Your task to perform on an android device: Search for logitech g933 on target, select the first entry, add it to the cart, then select checkout. Image 0: 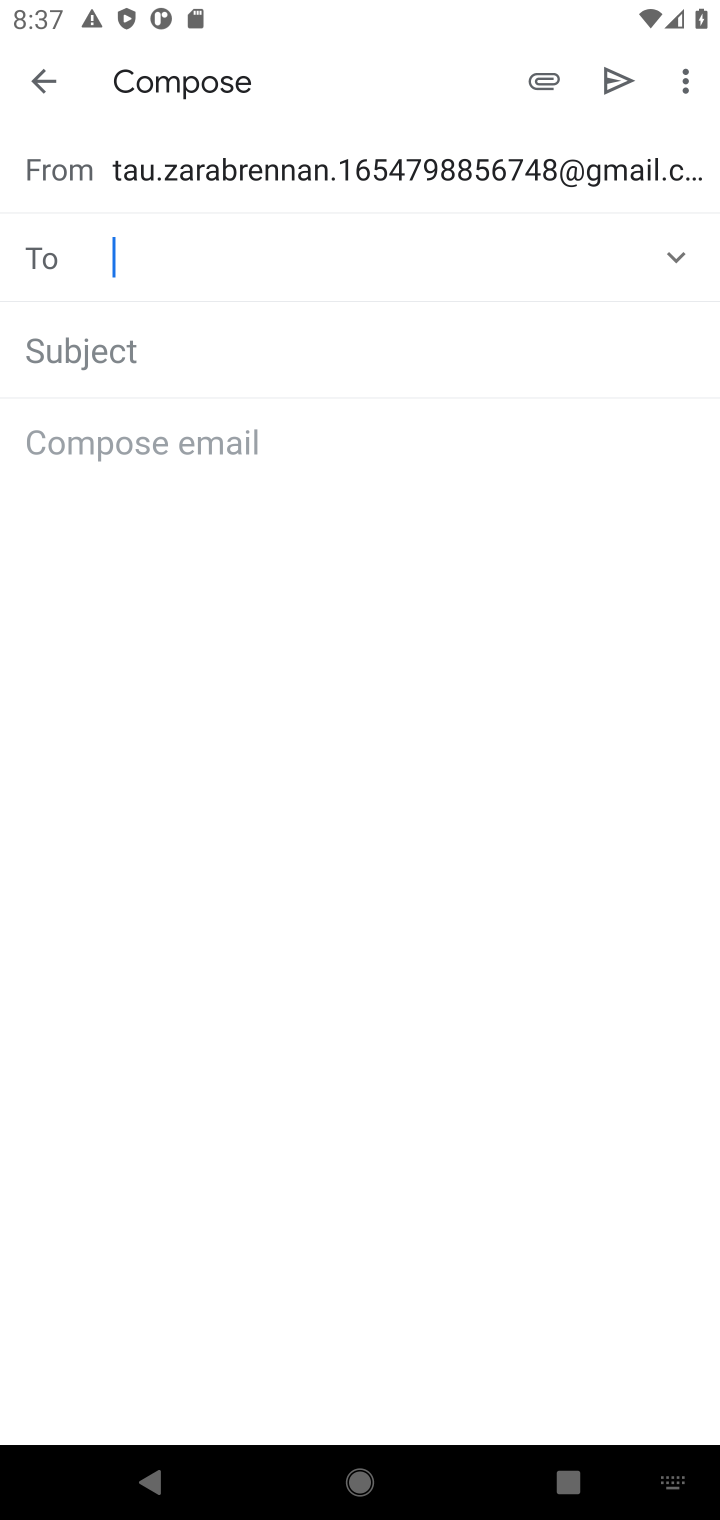
Step 0: press home button
Your task to perform on an android device: Search for logitech g933 on target, select the first entry, add it to the cart, then select checkout. Image 1: 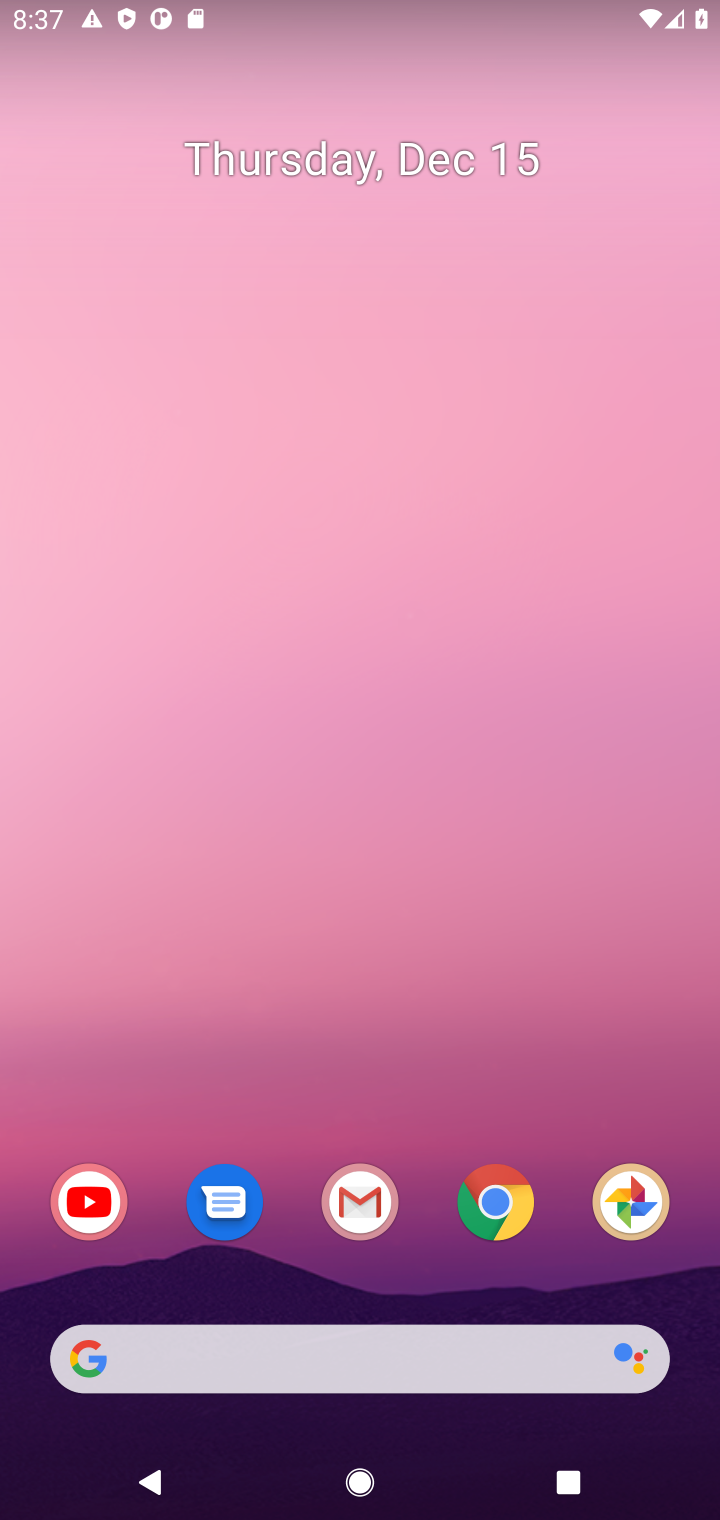
Step 1: click (497, 1204)
Your task to perform on an android device: Search for logitech g933 on target, select the first entry, add it to the cart, then select checkout. Image 2: 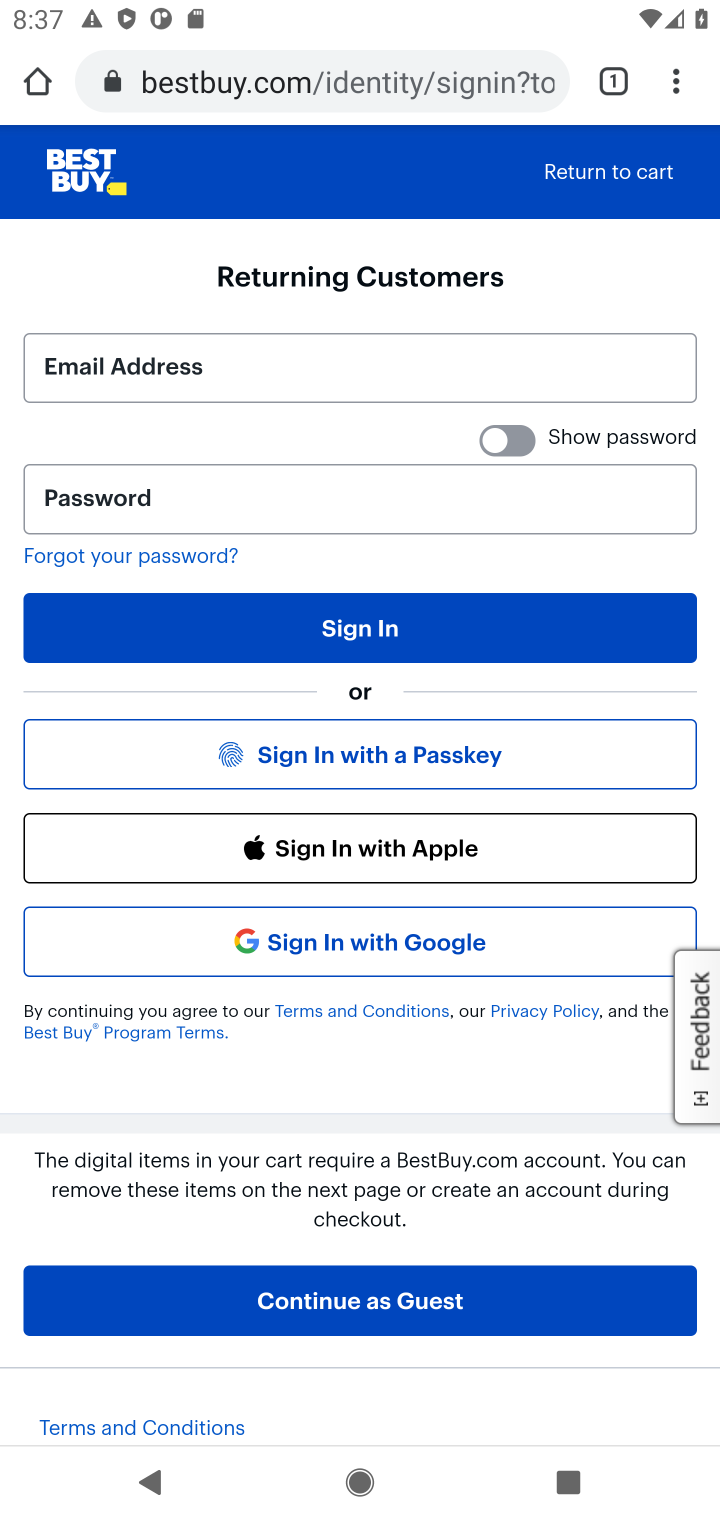
Step 2: click (306, 84)
Your task to perform on an android device: Search for logitech g933 on target, select the first entry, add it to the cart, then select checkout. Image 3: 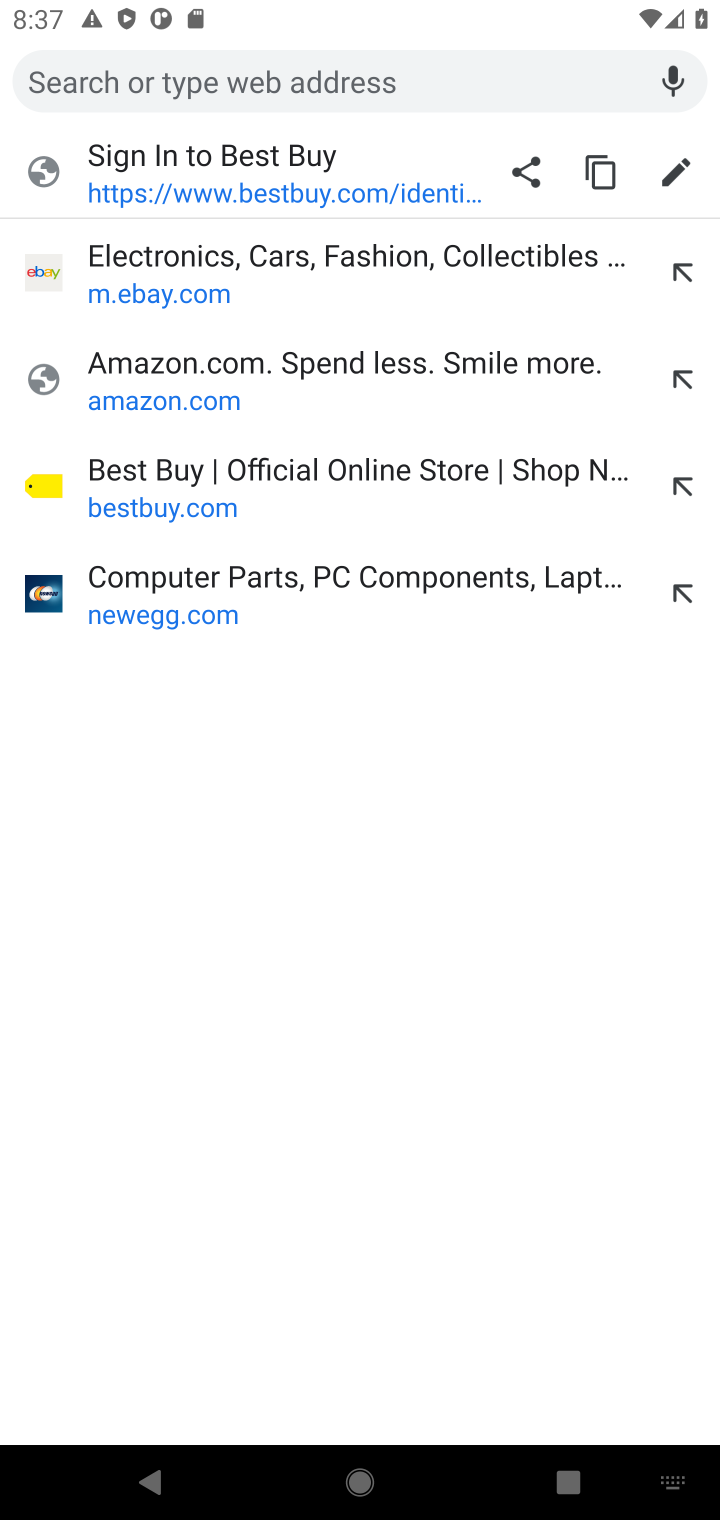
Step 3: type "target.com"
Your task to perform on an android device: Search for logitech g933 on target, select the first entry, add it to the cart, then select checkout. Image 4: 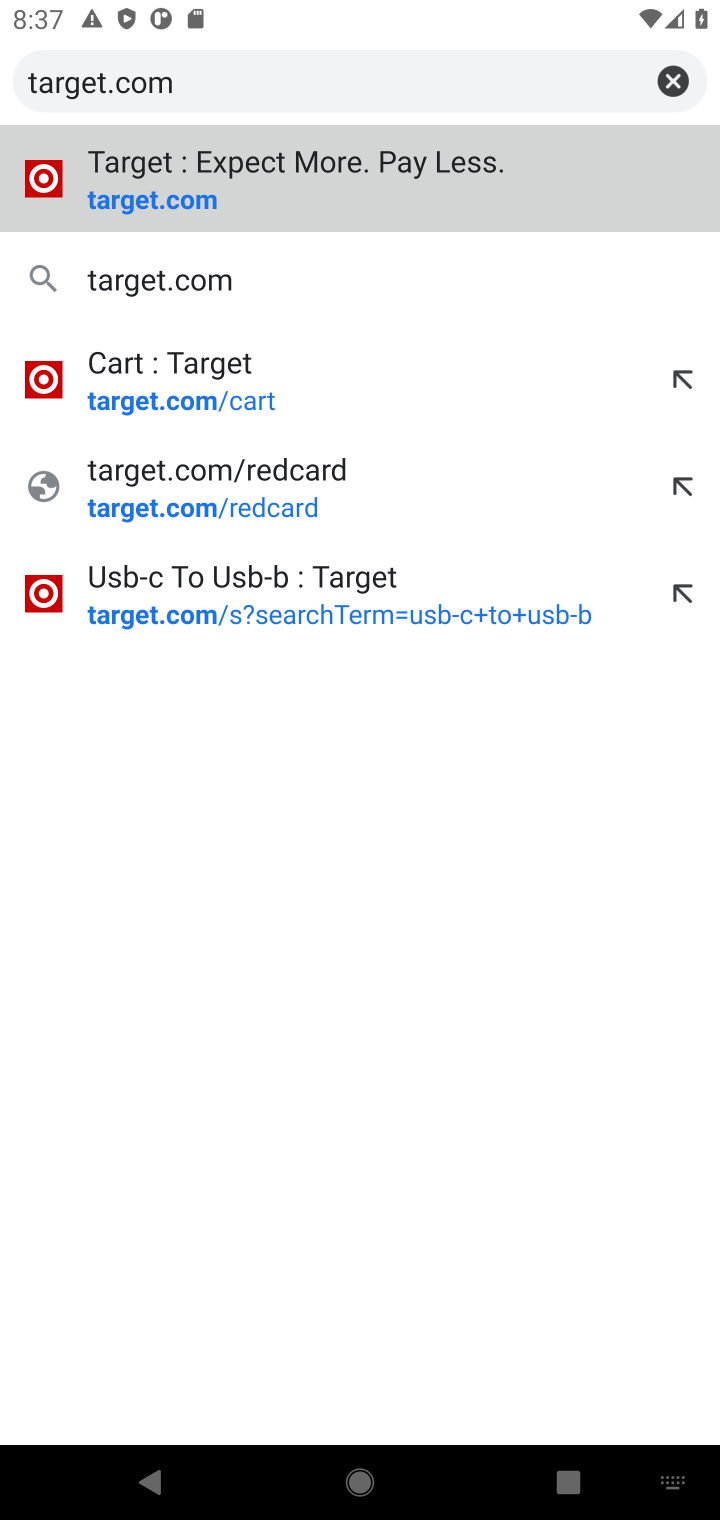
Step 4: click (145, 190)
Your task to perform on an android device: Search for logitech g933 on target, select the first entry, add it to the cart, then select checkout. Image 5: 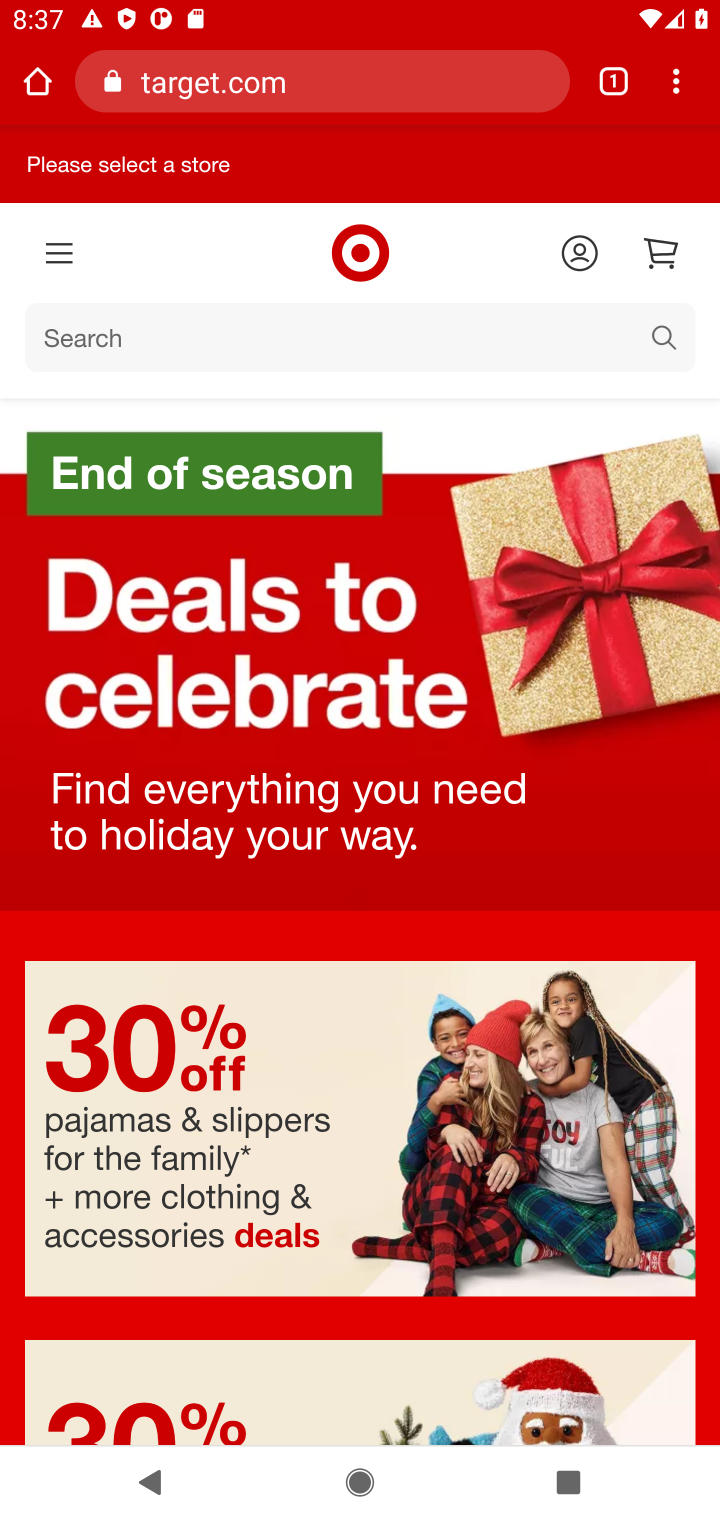
Step 5: click (79, 341)
Your task to perform on an android device: Search for logitech g933 on target, select the first entry, add it to the cart, then select checkout. Image 6: 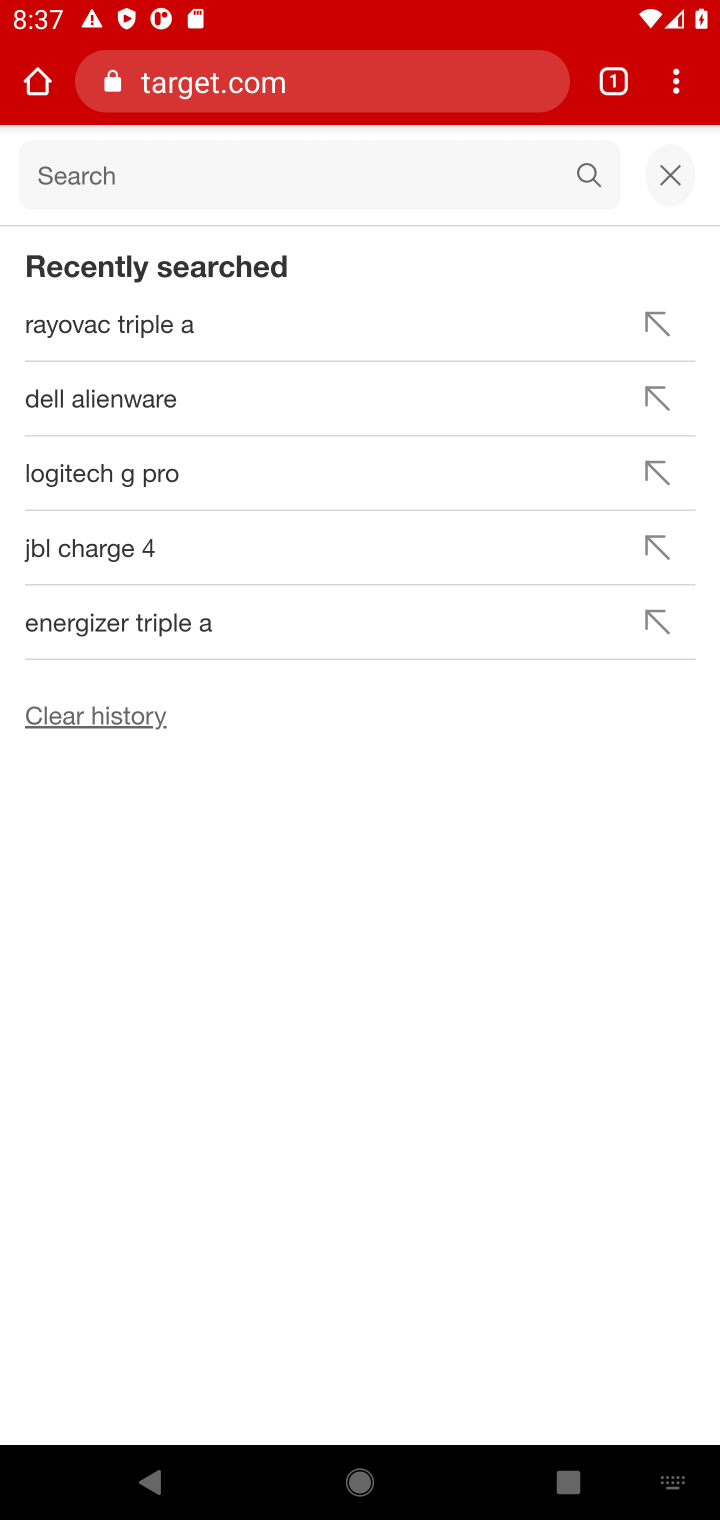
Step 6: type "logitech g933"
Your task to perform on an android device: Search for logitech g933 on target, select the first entry, add it to the cart, then select checkout. Image 7: 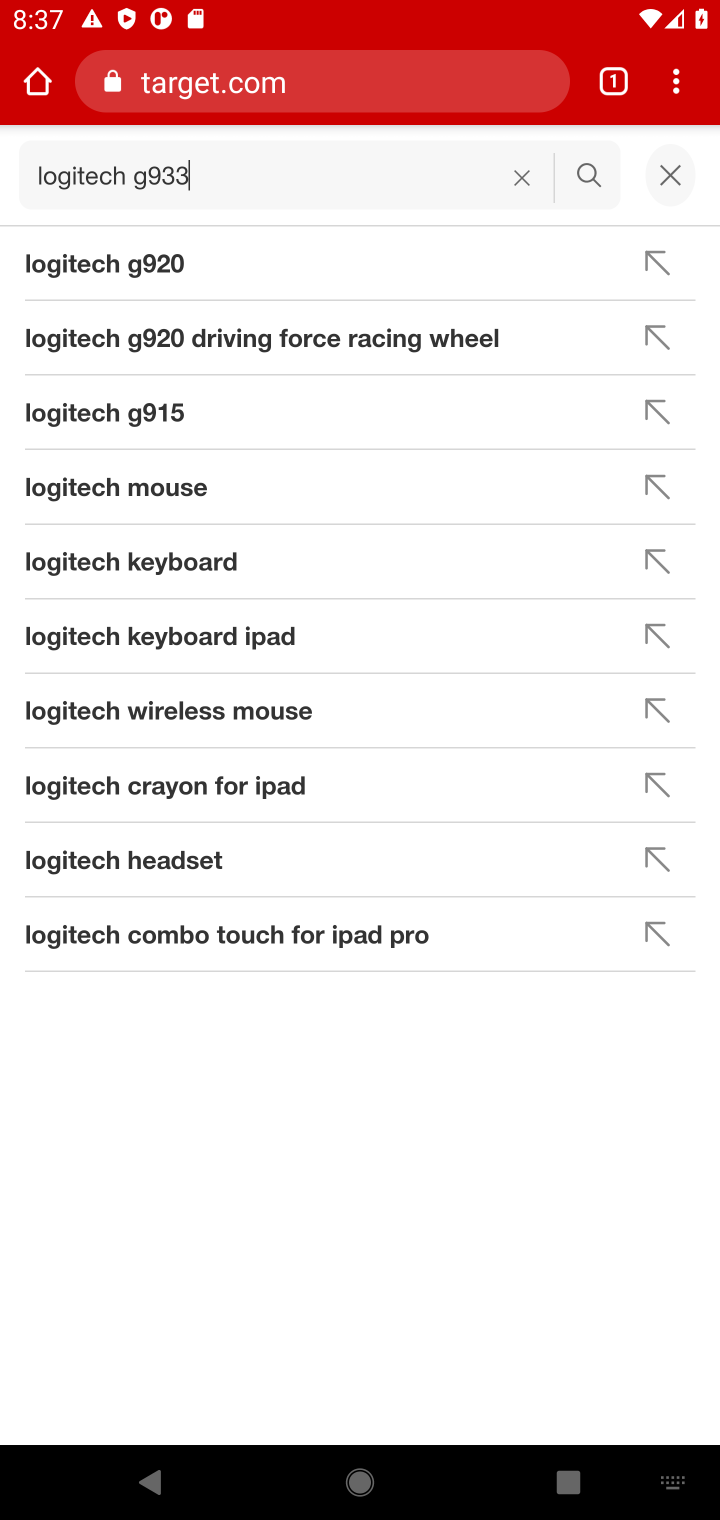
Step 7: click (586, 177)
Your task to perform on an android device: Search for logitech g933 on target, select the first entry, add it to the cart, then select checkout. Image 8: 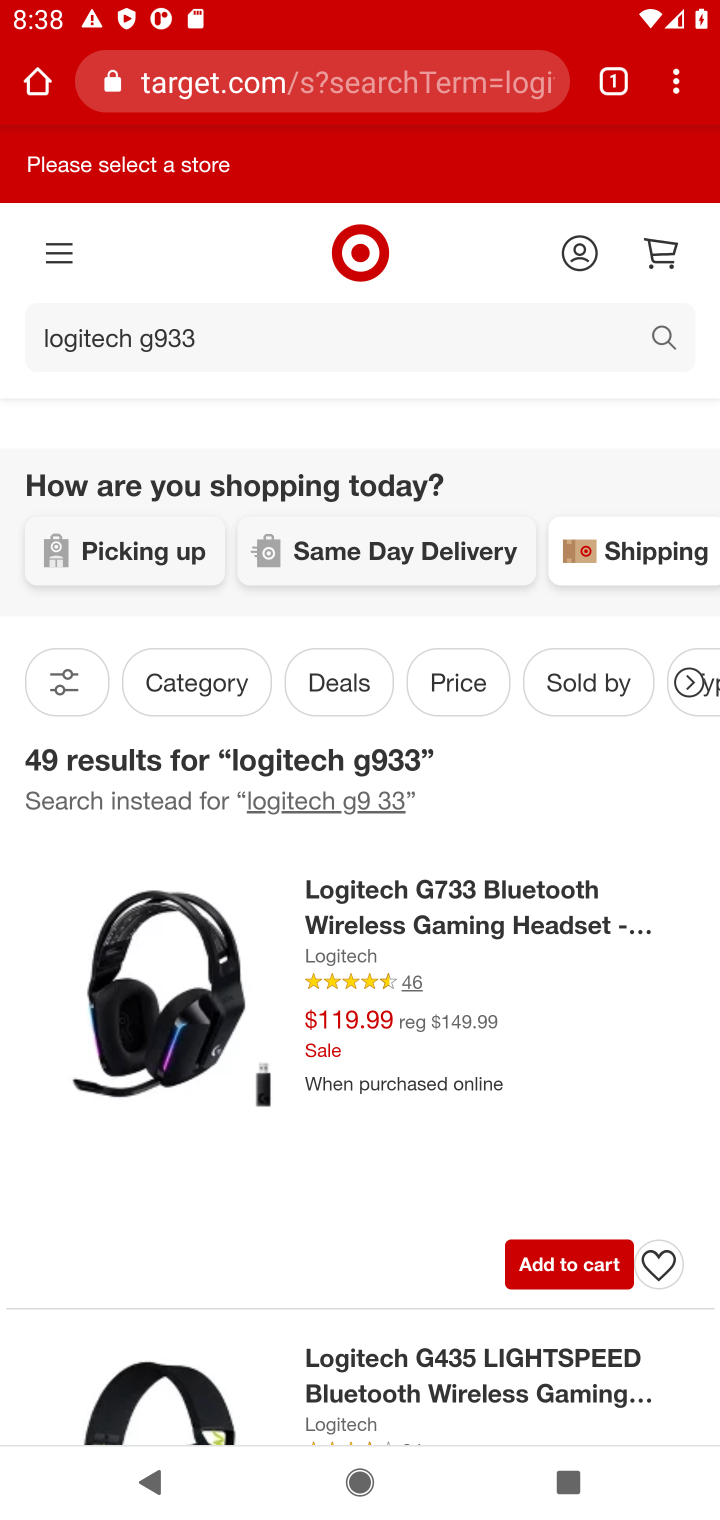
Step 8: task complete